Your task to perform on an android device: Open accessibility settings Image 0: 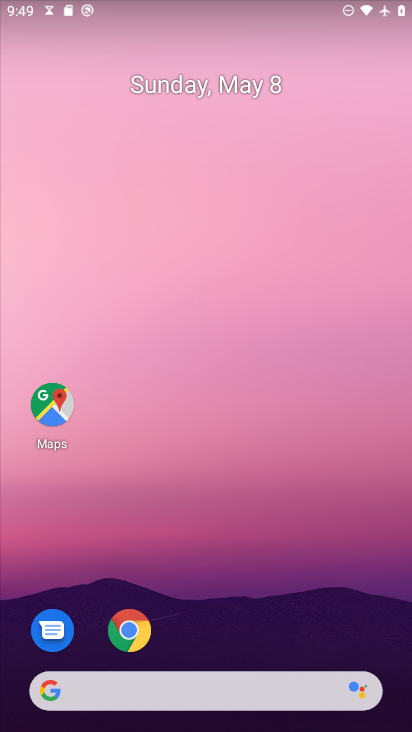
Step 0: press home button
Your task to perform on an android device: Open accessibility settings Image 1: 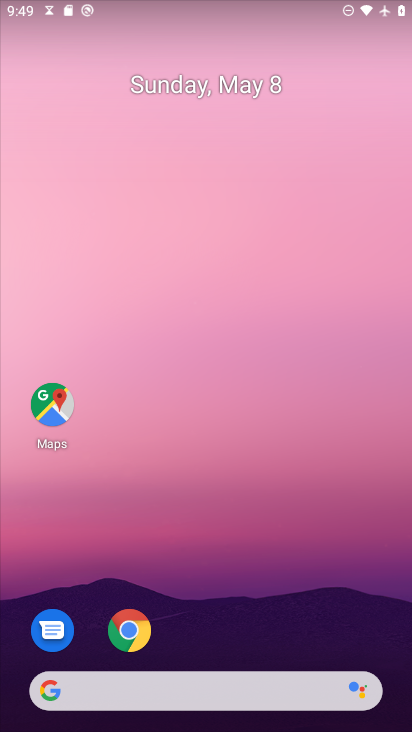
Step 1: drag from (173, 696) to (331, 115)
Your task to perform on an android device: Open accessibility settings Image 2: 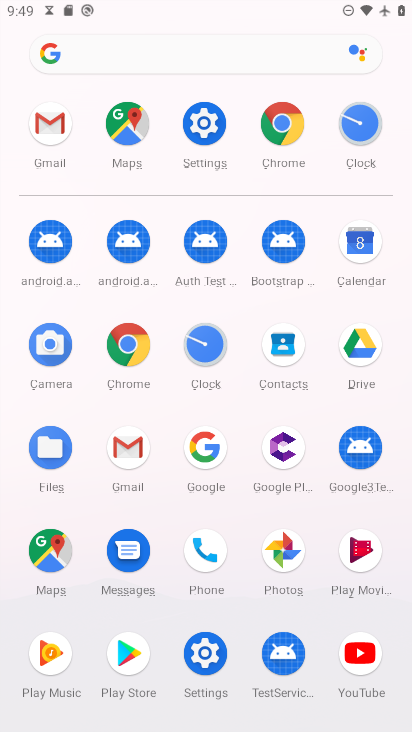
Step 2: click (203, 122)
Your task to perform on an android device: Open accessibility settings Image 3: 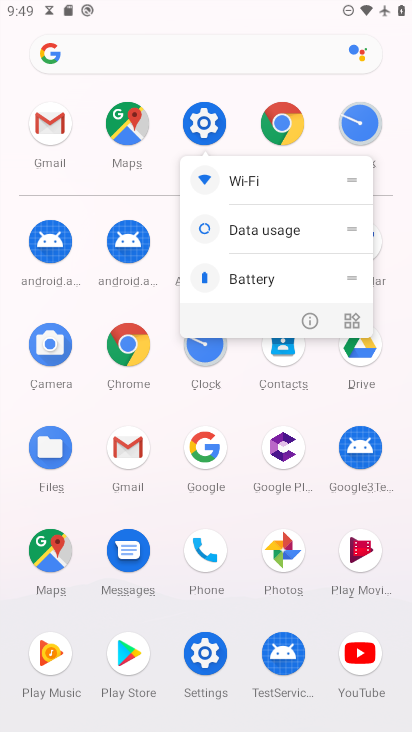
Step 3: click (203, 123)
Your task to perform on an android device: Open accessibility settings Image 4: 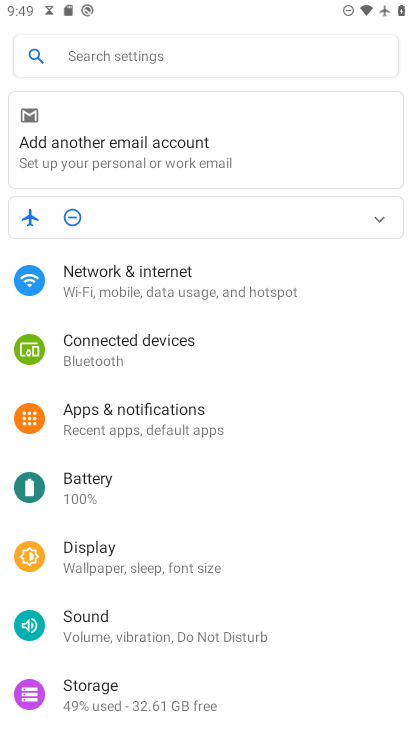
Step 4: drag from (163, 615) to (265, 264)
Your task to perform on an android device: Open accessibility settings Image 5: 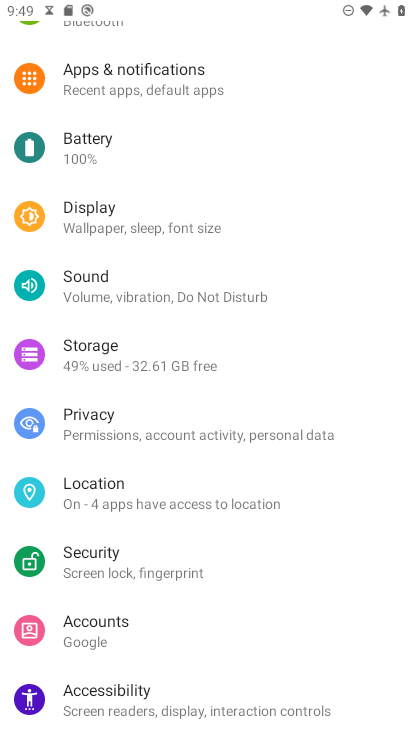
Step 5: click (138, 692)
Your task to perform on an android device: Open accessibility settings Image 6: 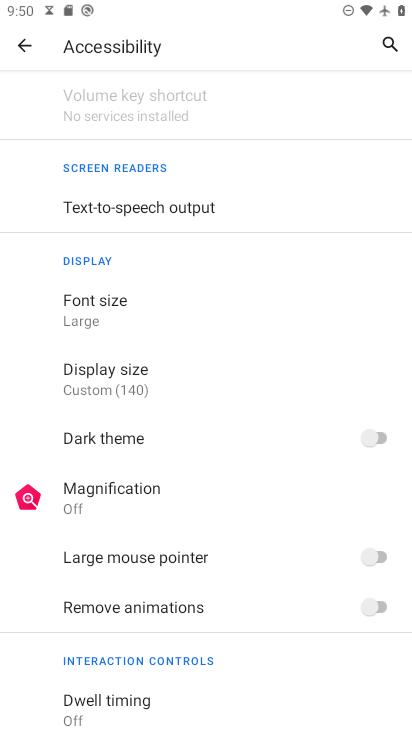
Step 6: task complete